Your task to perform on an android device: add a contact Image 0: 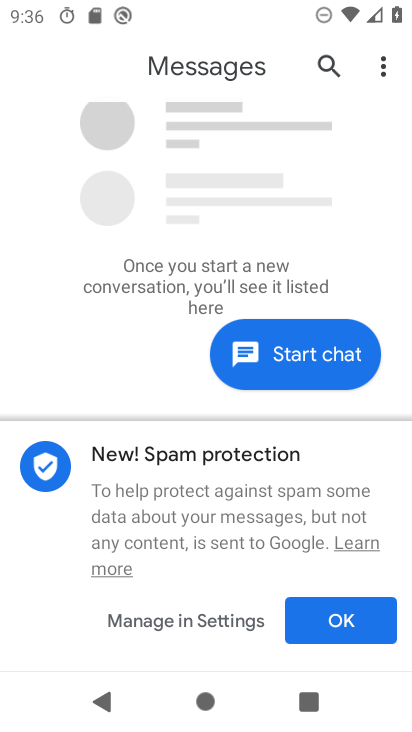
Step 0: press home button
Your task to perform on an android device: add a contact Image 1: 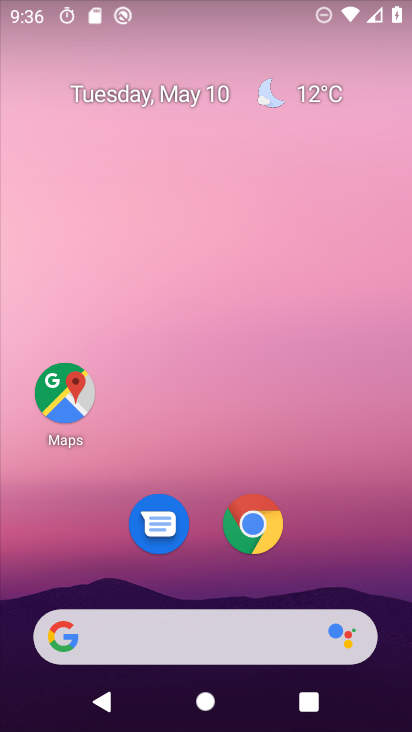
Step 1: drag from (328, 541) to (300, 38)
Your task to perform on an android device: add a contact Image 2: 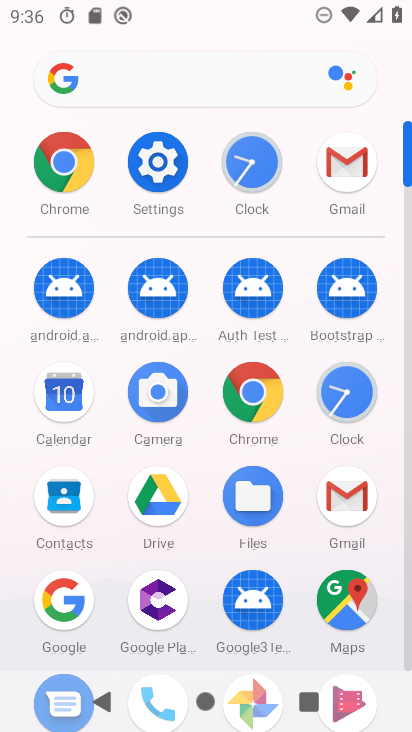
Step 2: click (66, 489)
Your task to perform on an android device: add a contact Image 3: 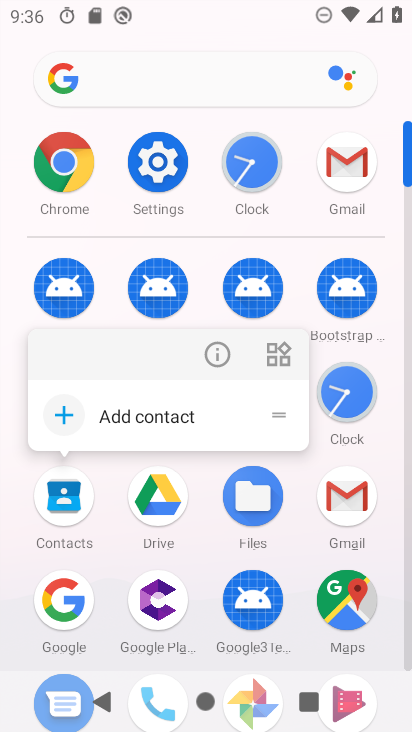
Step 3: click (66, 489)
Your task to perform on an android device: add a contact Image 4: 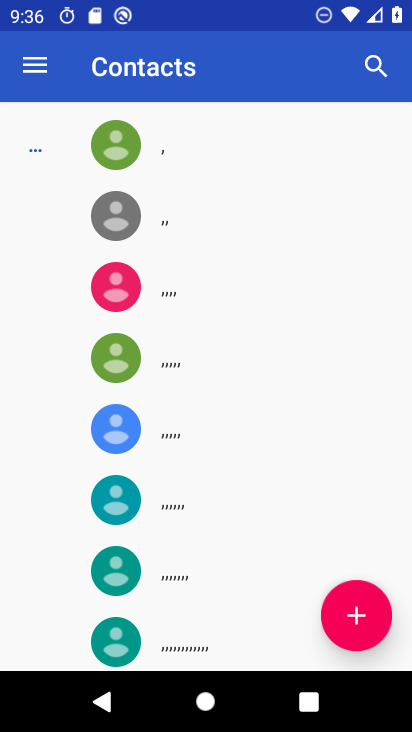
Step 4: click (352, 626)
Your task to perform on an android device: add a contact Image 5: 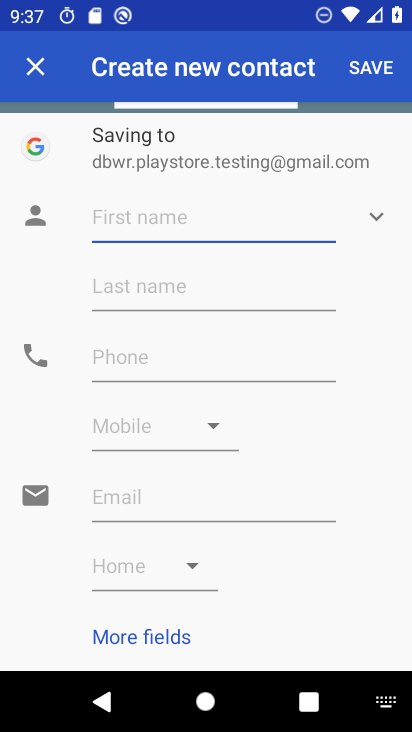
Step 5: type "Kim"
Your task to perform on an android device: add a contact Image 6: 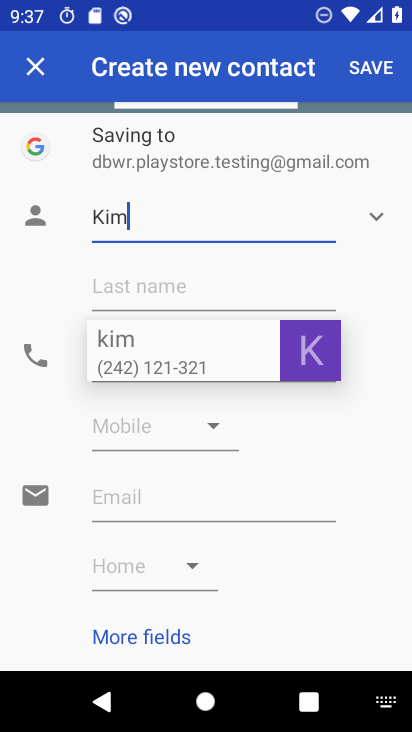
Step 6: type " "
Your task to perform on an android device: add a contact Image 7: 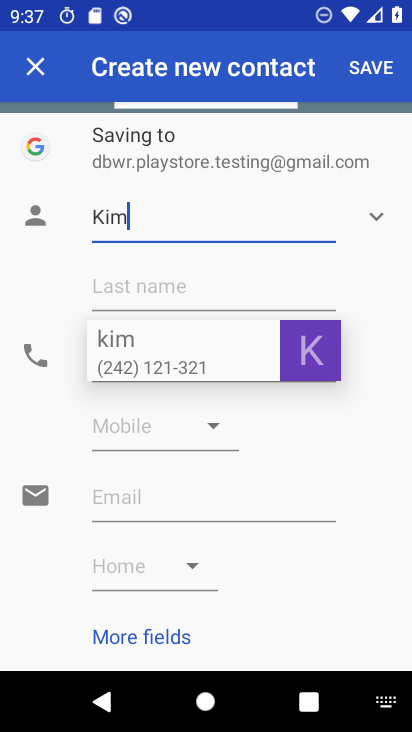
Step 7: click (256, 289)
Your task to perform on an android device: add a contact Image 8: 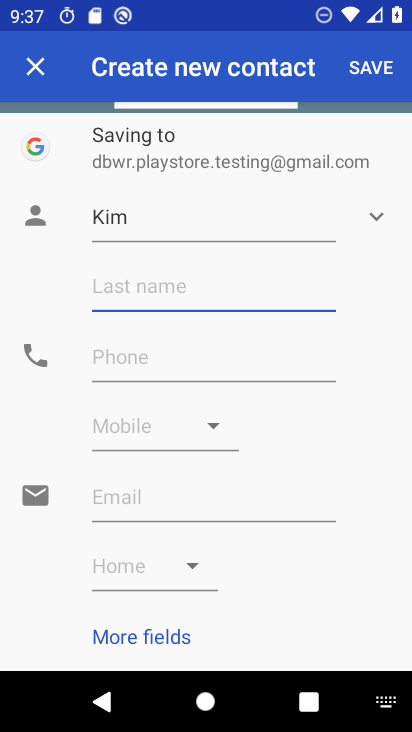
Step 8: type "Krit"
Your task to perform on an android device: add a contact Image 9: 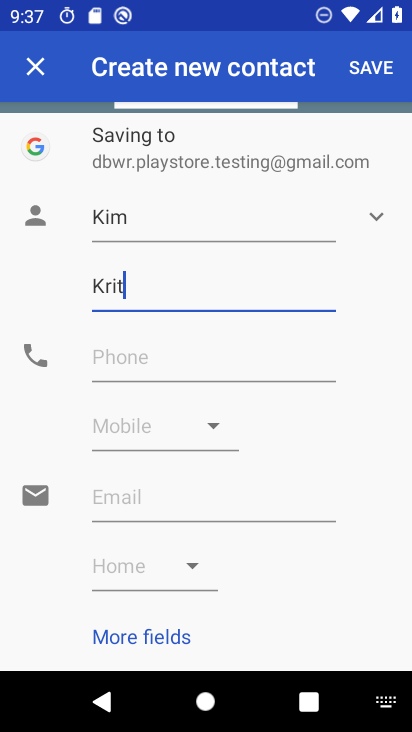
Step 9: click (289, 366)
Your task to perform on an android device: add a contact Image 10: 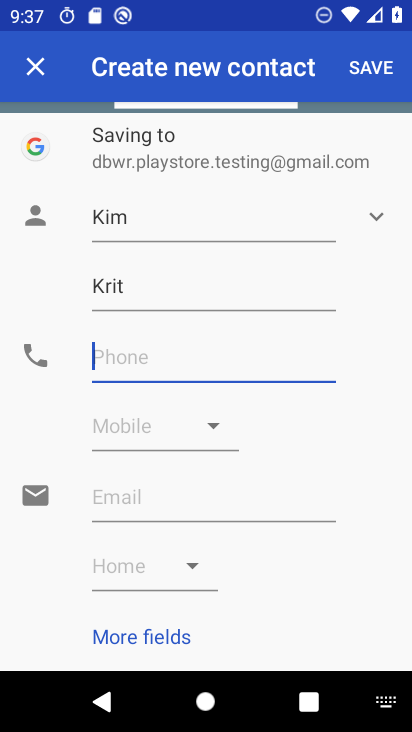
Step 10: type "0112233445566"
Your task to perform on an android device: add a contact Image 11: 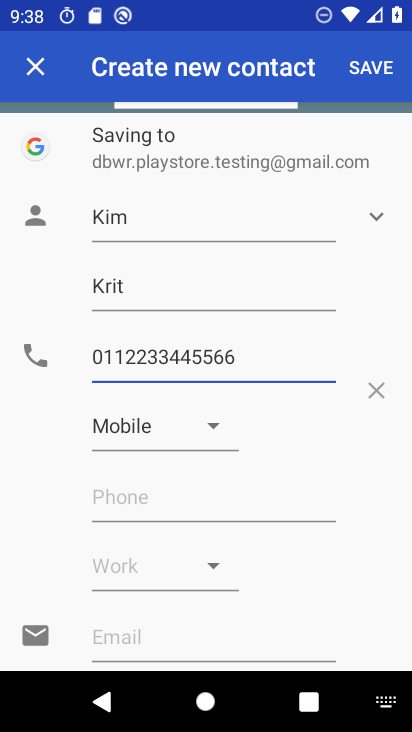
Step 11: click (212, 419)
Your task to perform on an android device: add a contact Image 12: 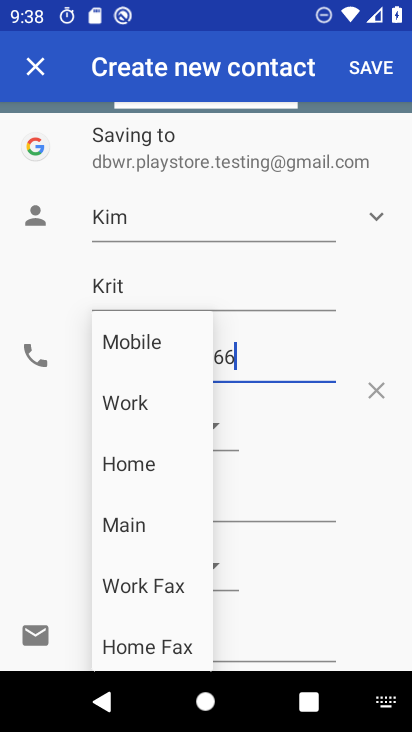
Step 12: click (144, 462)
Your task to perform on an android device: add a contact Image 13: 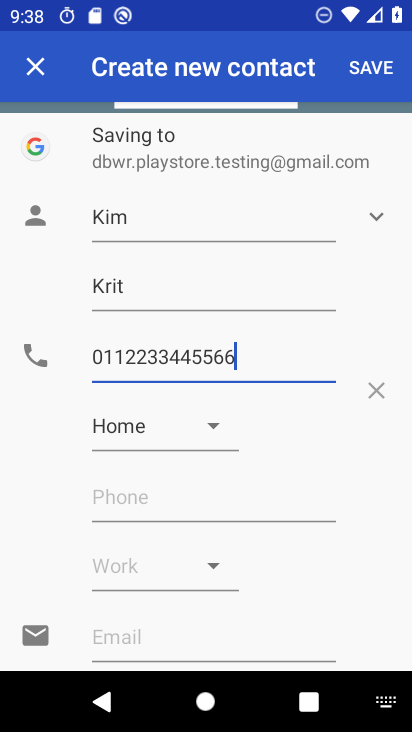
Step 13: task complete